Your task to perform on an android device: stop showing notifications on the lock screen Image 0: 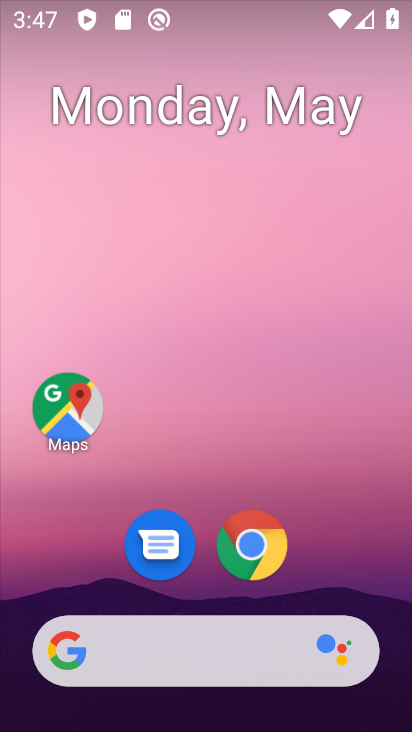
Step 0: drag from (205, 575) to (352, 55)
Your task to perform on an android device: stop showing notifications on the lock screen Image 1: 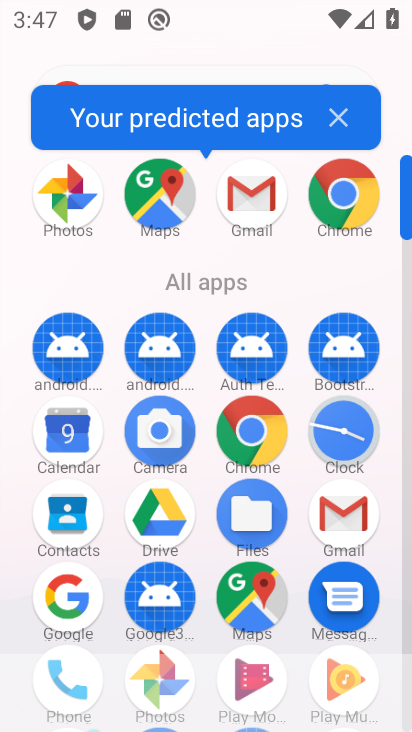
Step 1: drag from (204, 627) to (208, 185)
Your task to perform on an android device: stop showing notifications on the lock screen Image 2: 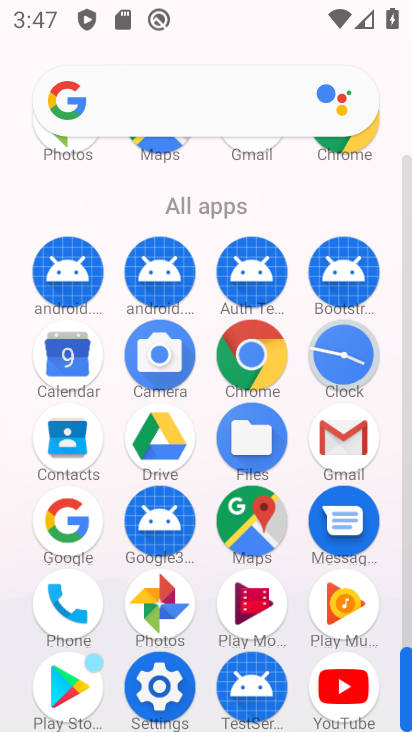
Step 2: click (162, 691)
Your task to perform on an android device: stop showing notifications on the lock screen Image 3: 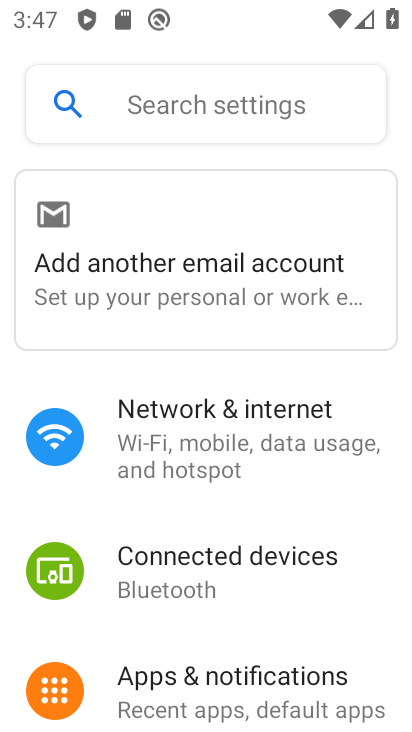
Step 3: drag from (257, 567) to (221, 141)
Your task to perform on an android device: stop showing notifications on the lock screen Image 4: 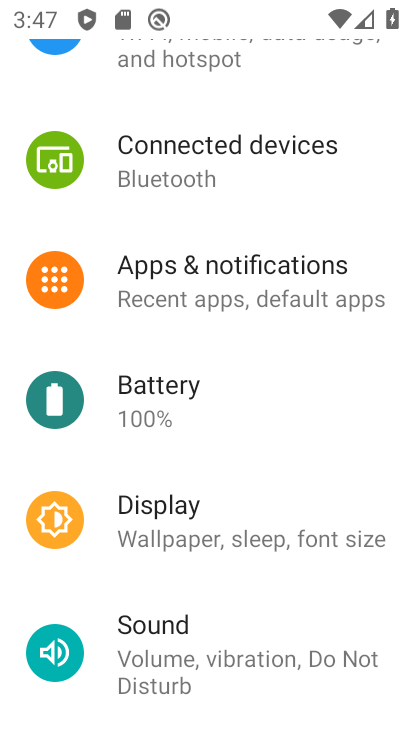
Step 4: click (214, 273)
Your task to perform on an android device: stop showing notifications on the lock screen Image 5: 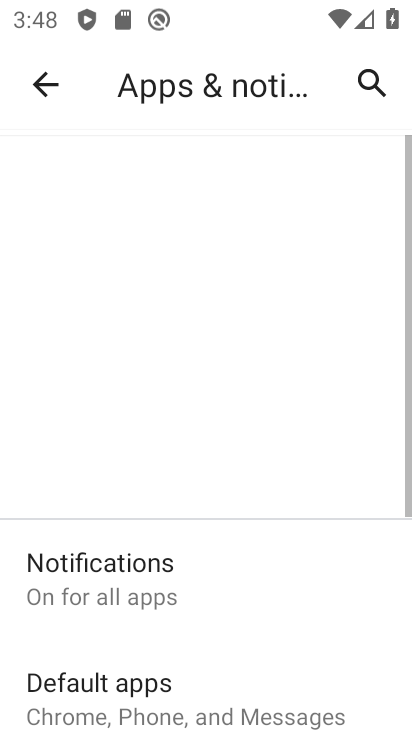
Step 5: click (133, 583)
Your task to perform on an android device: stop showing notifications on the lock screen Image 6: 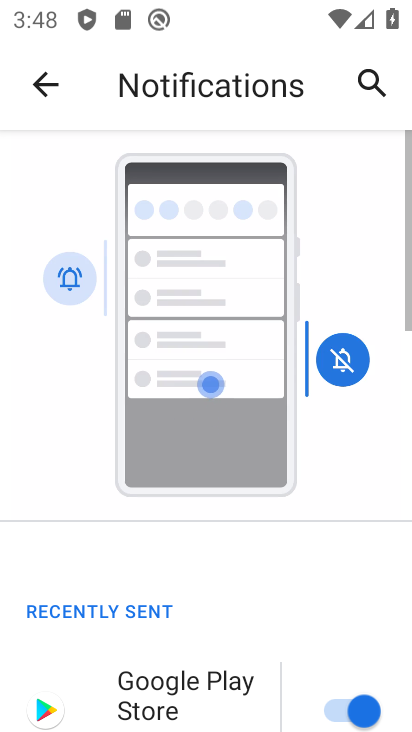
Step 6: drag from (250, 595) to (286, 162)
Your task to perform on an android device: stop showing notifications on the lock screen Image 7: 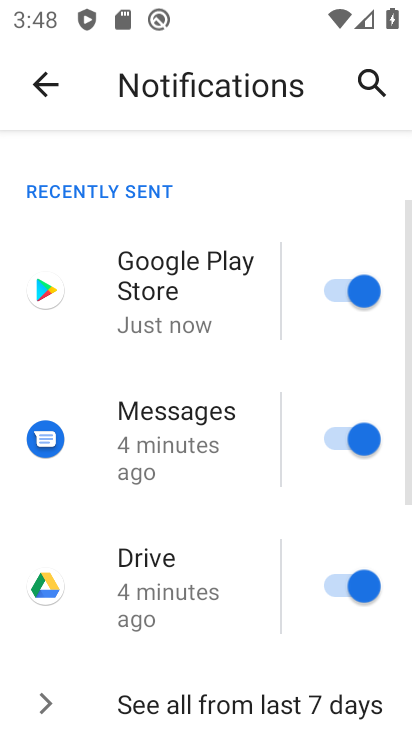
Step 7: drag from (237, 583) to (238, 172)
Your task to perform on an android device: stop showing notifications on the lock screen Image 8: 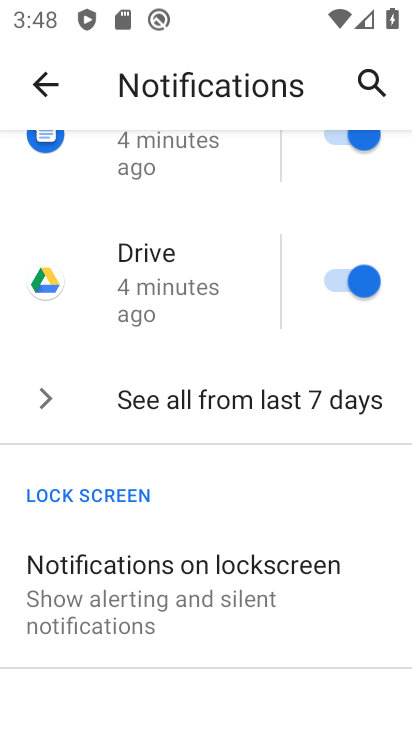
Step 8: click (174, 599)
Your task to perform on an android device: stop showing notifications on the lock screen Image 9: 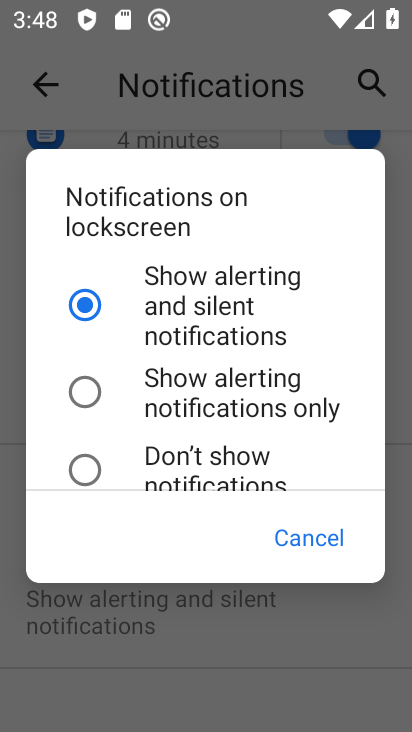
Step 9: click (96, 470)
Your task to perform on an android device: stop showing notifications on the lock screen Image 10: 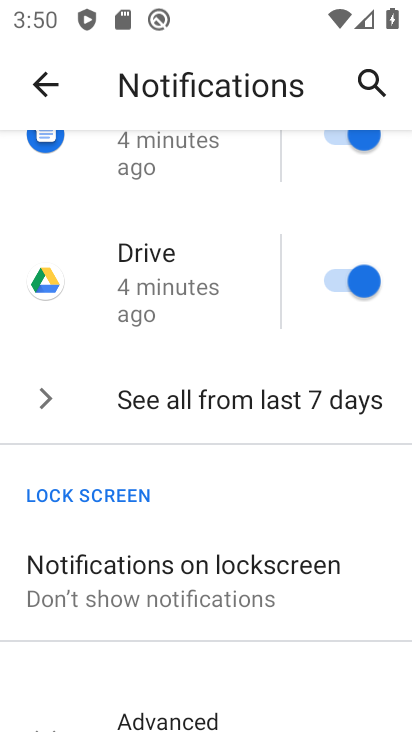
Step 10: task complete